Your task to perform on an android device: check data usage Image 0: 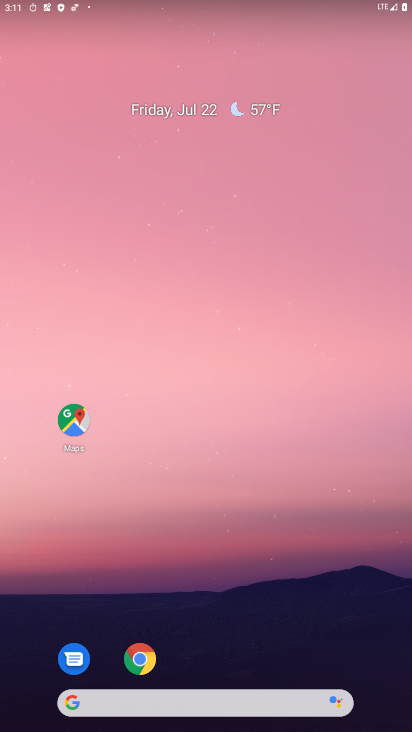
Step 0: drag from (263, 622) to (271, 58)
Your task to perform on an android device: check data usage Image 1: 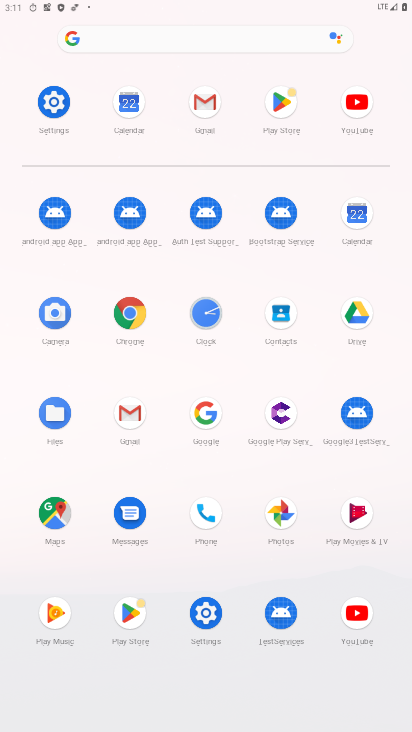
Step 1: click (65, 102)
Your task to perform on an android device: check data usage Image 2: 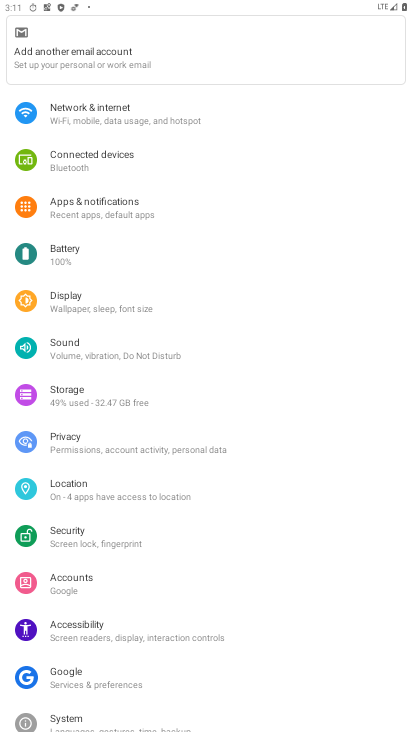
Step 2: click (52, 109)
Your task to perform on an android device: check data usage Image 3: 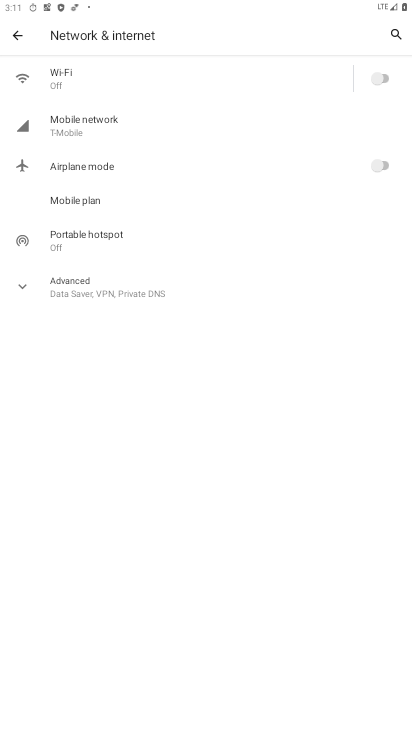
Step 3: click (71, 110)
Your task to perform on an android device: check data usage Image 4: 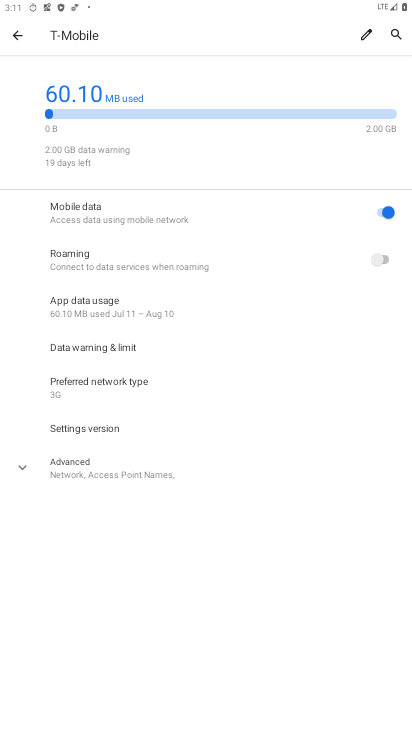
Step 4: click (97, 303)
Your task to perform on an android device: check data usage Image 5: 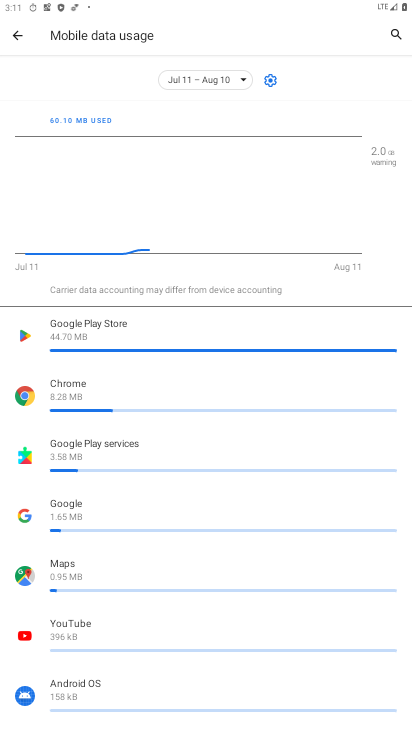
Step 5: task complete